Your task to perform on an android device: Go to network settings Image 0: 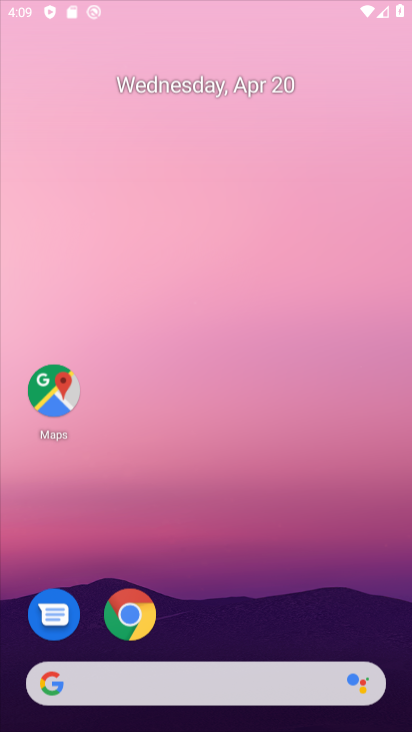
Step 0: click (198, 59)
Your task to perform on an android device: Go to network settings Image 1: 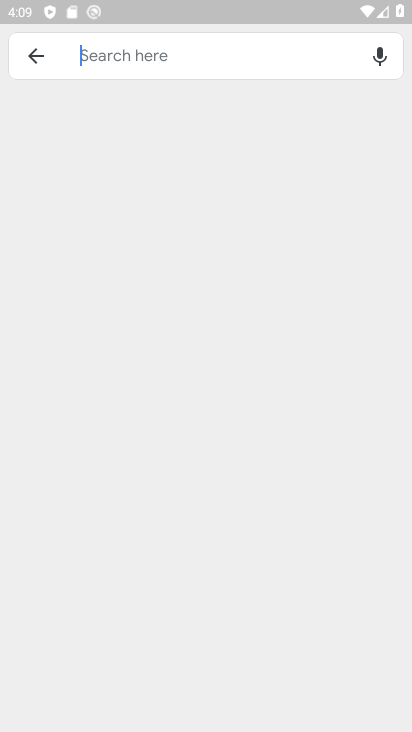
Step 1: press home button
Your task to perform on an android device: Go to network settings Image 2: 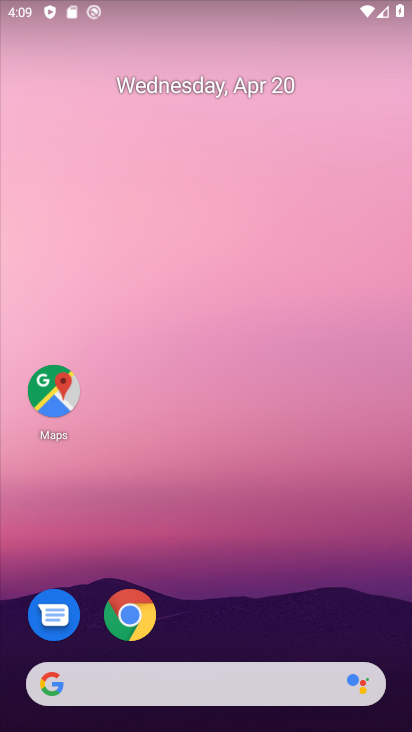
Step 2: drag from (341, 607) to (205, 61)
Your task to perform on an android device: Go to network settings Image 3: 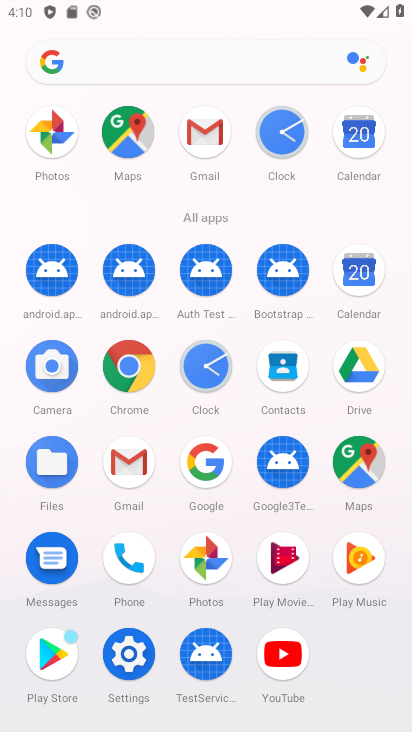
Step 3: click (126, 664)
Your task to perform on an android device: Go to network settings Image 4: 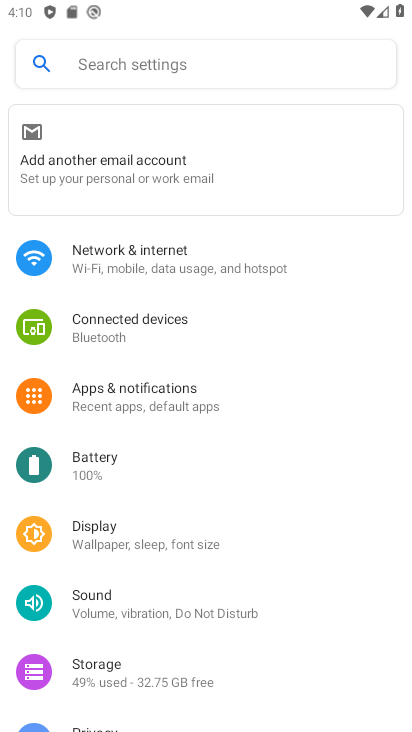
Step 4: click (157, 269)
Your task to perform on an android device: Go to network settings Image 5: 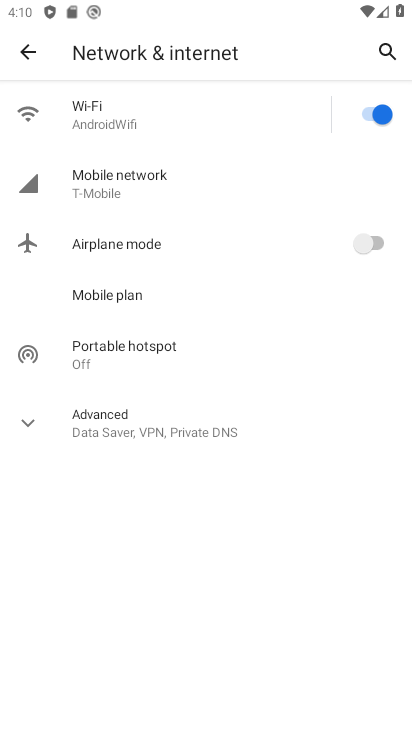
Step 5: click (211, 110)
Your task to perform on an android device: Go to network settings Image 6: 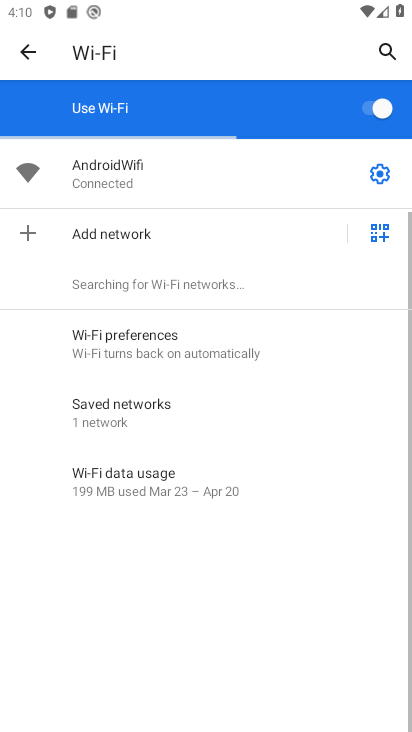
Step 6: task complete